Your task to perform on an android device: Search for pizza restaurants on Maps Image 0: 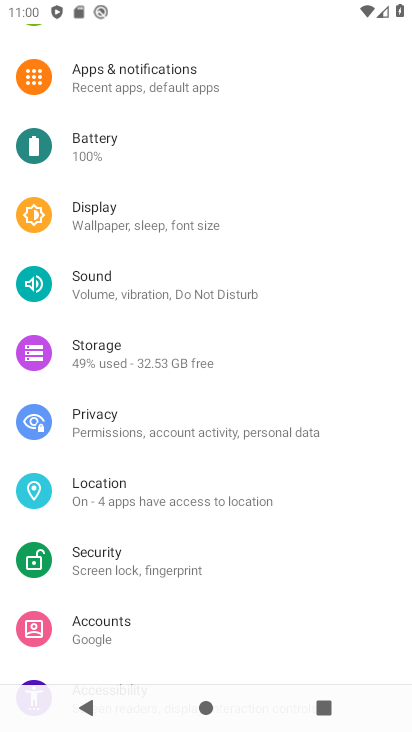
Step 0: press home button
Your task to perform on an android device: Search for pizza restaurants on Maps Image 1: 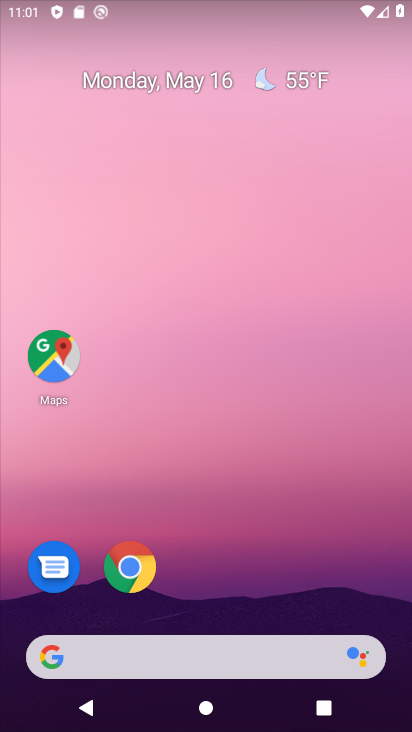
Step 1: click (55, 364)
Your task to perform on an android device: Search for pizza restaurants on Maps Image 2: 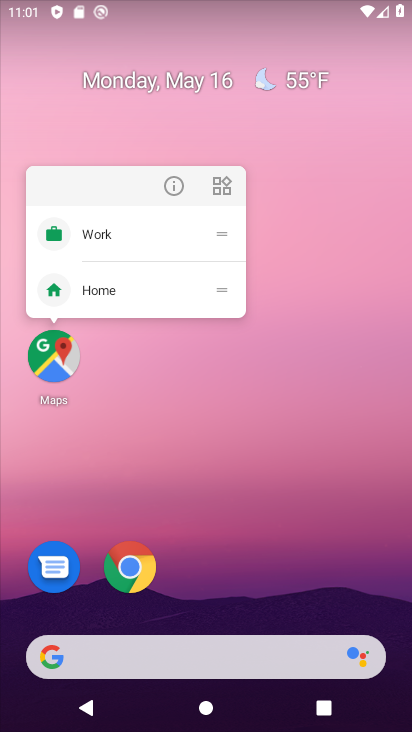
Step 2: click (67, 357)
Your task to perform on an android device: Search for pizza restaurants on Maps Image 3: 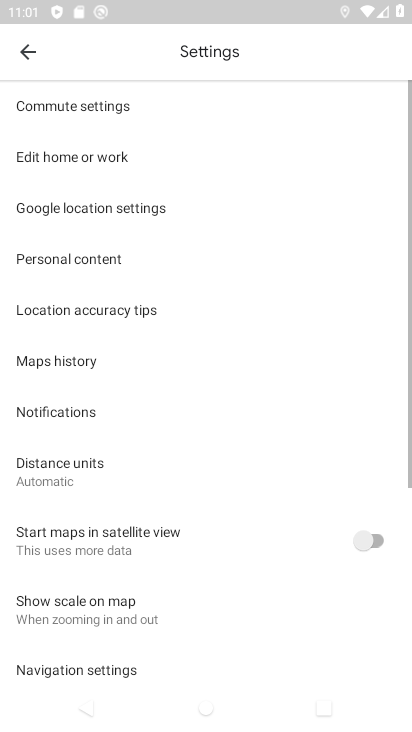
Step 3: click (35, 56)
Your task to perform on an android device: Search for pizza restaurants on Maps Image 4: 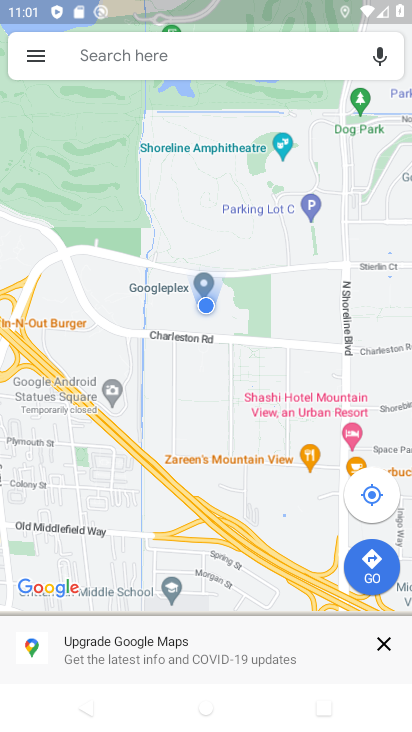
Step 4: click (154, 50)
Your task to perform on an android device: Search for pizza restaurants on Maps Image 5: 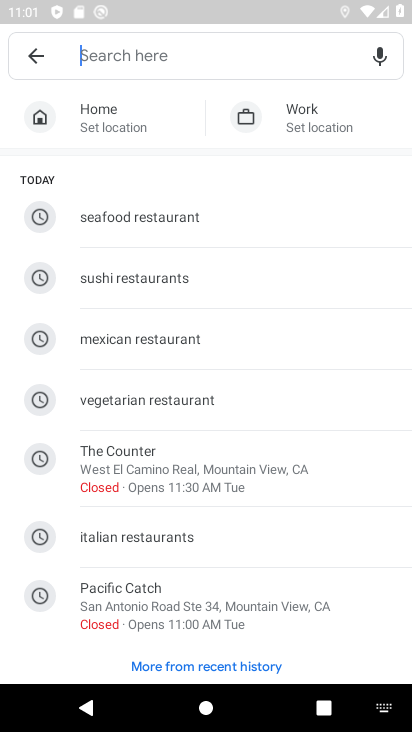
Step 5: type "Pizza restaurants"
Your task to perform on an android device: Search for pizza restaurants on Maps Image 6: 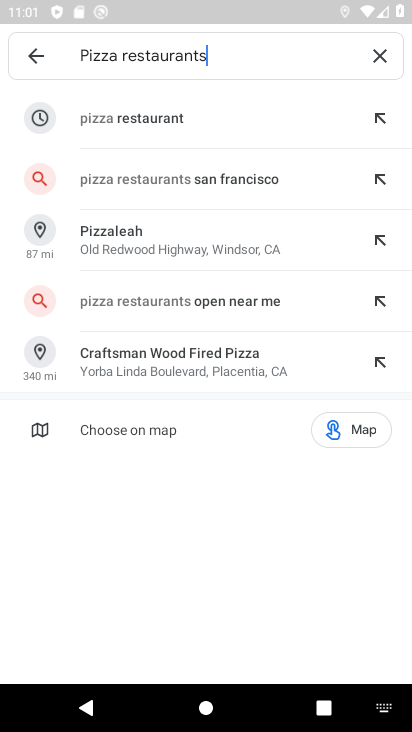
Step 6: click (192, 128)
Your task to perform on an android device: Search for pizza restaurants on Maps Image 7: 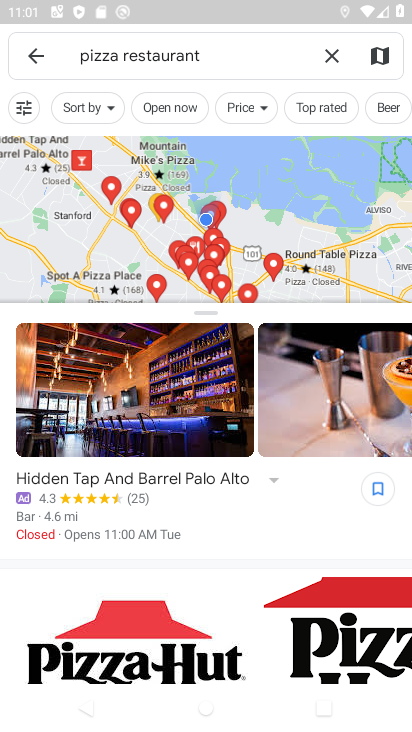
Step 7: task complete